Your task to perform on an android device: Show me productivity apps on the Play Store Image 0: 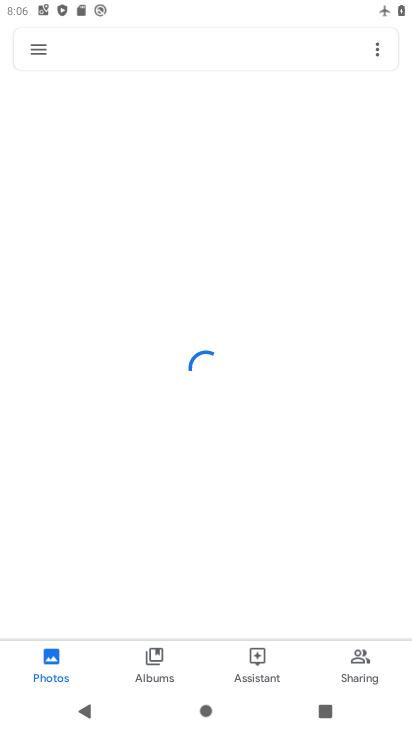
Step 0: press home button
Your task to perform on an android device: Show me productivity apps on the Play Store Image 1: 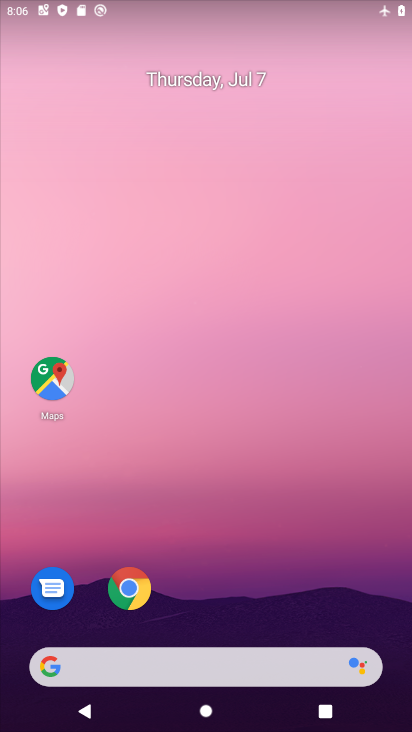
Step 1: drag from (304, 556) to (305, 198)
Your task to perform on an android device: Show me productivity apps on the Play Store Image 2: 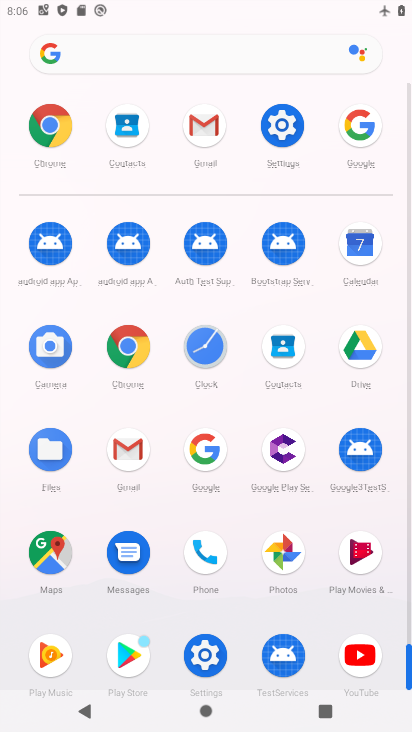
Step 2: click (128, 644)
Your task to perform on an android device: Show me productivity apps on the Play Store Image 3: 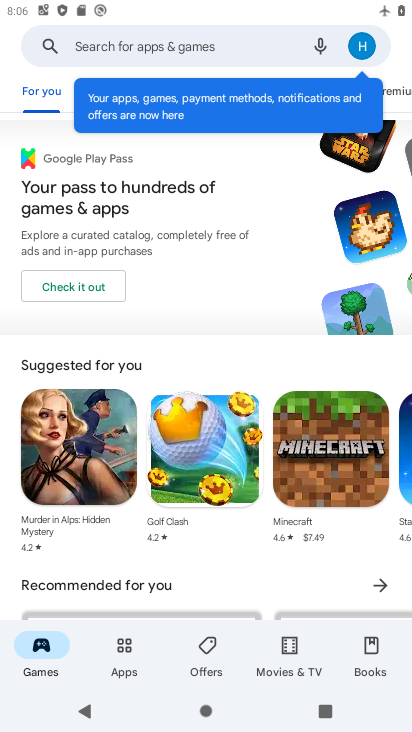
Step 3: click (121, 654)
Your task to perform on an android device: Show me productivity apps on the Play Store Image 4: 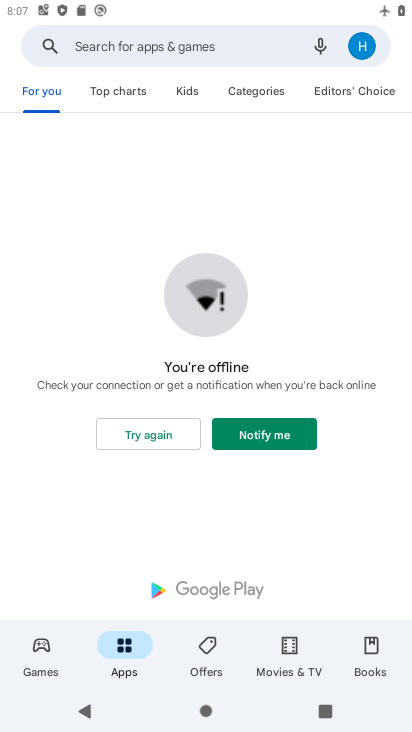
Step 4: task complete